Your task to perform on an android device: Go to eBay Image 0: 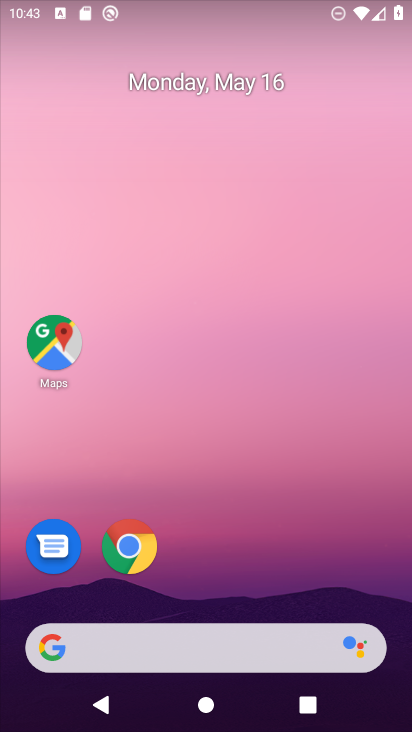
Step 0: click (161, 651)
Your task to perform on an android device: Go to eBay Image 1: 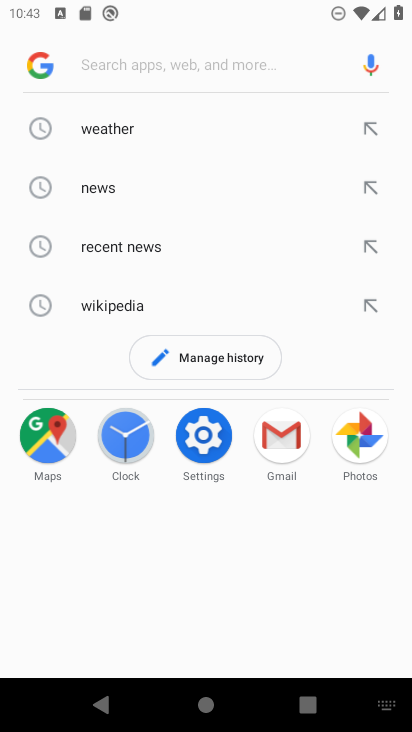
Step 1: type "ebay"
Your task to perform on an android device: Go to eBay Image 2: 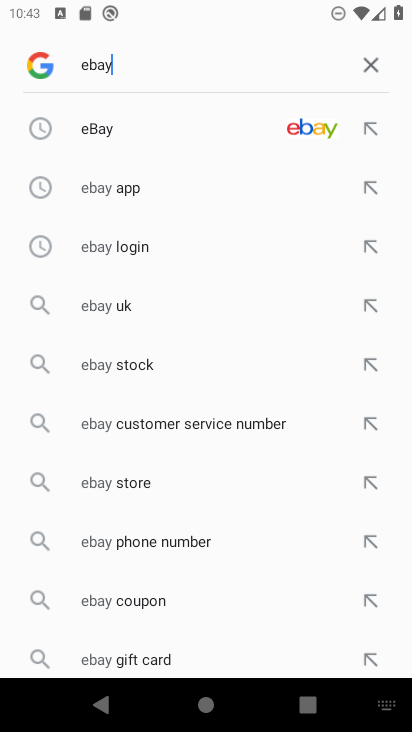
Step 2: click (239, 122)
Your task to perform on an android device: Go to eBay Image 3: 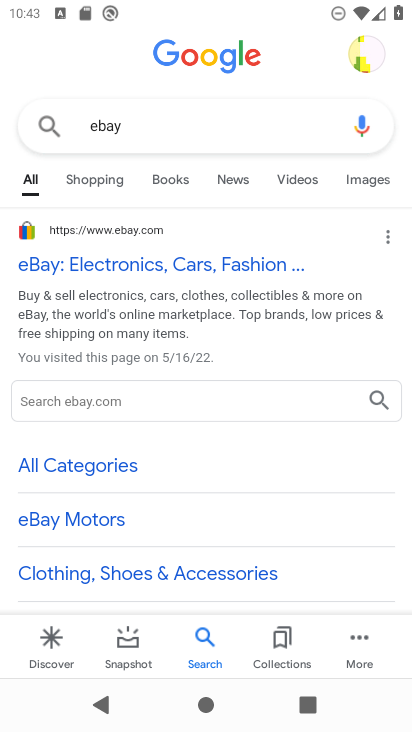
Step 3: task complete